Your task to perform on an android device: Open settings Image 0: 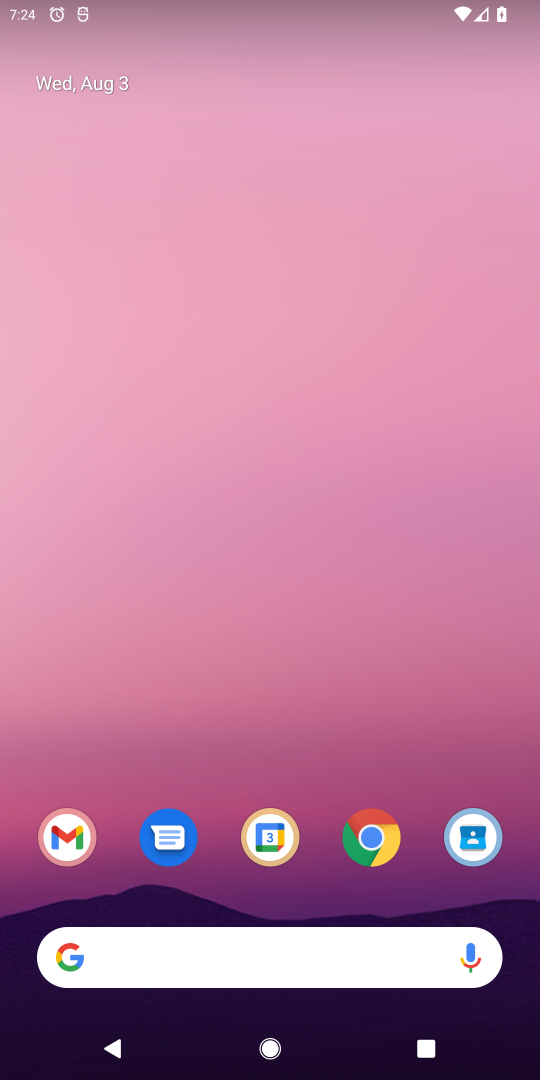
Step 0: press home button
Your task to perform on an android device: Open settings Image 1: 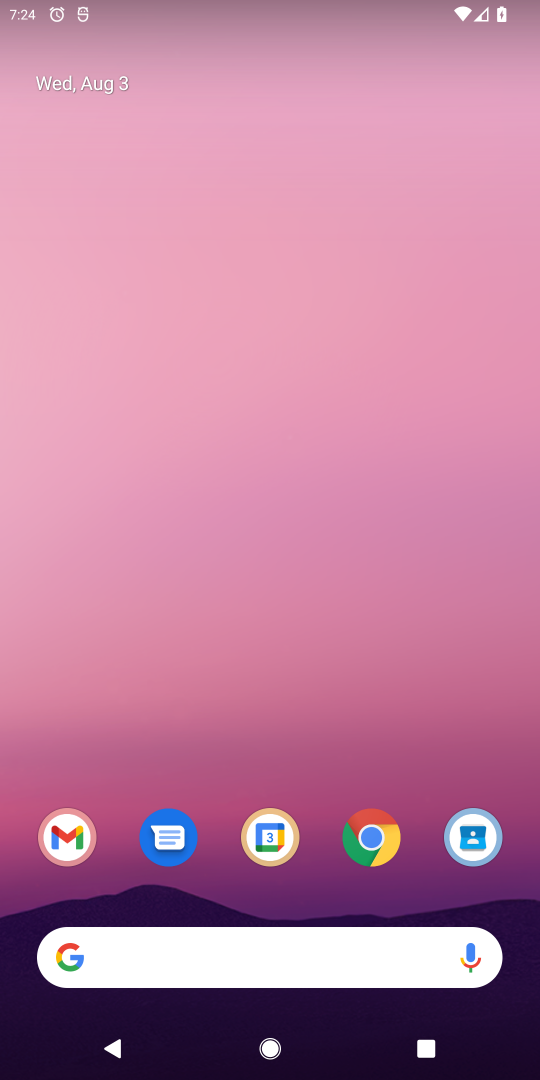
Step 1: drag from (238, 700) to (188, 103)
Your task to perform on an android device: Open settings Image 2: 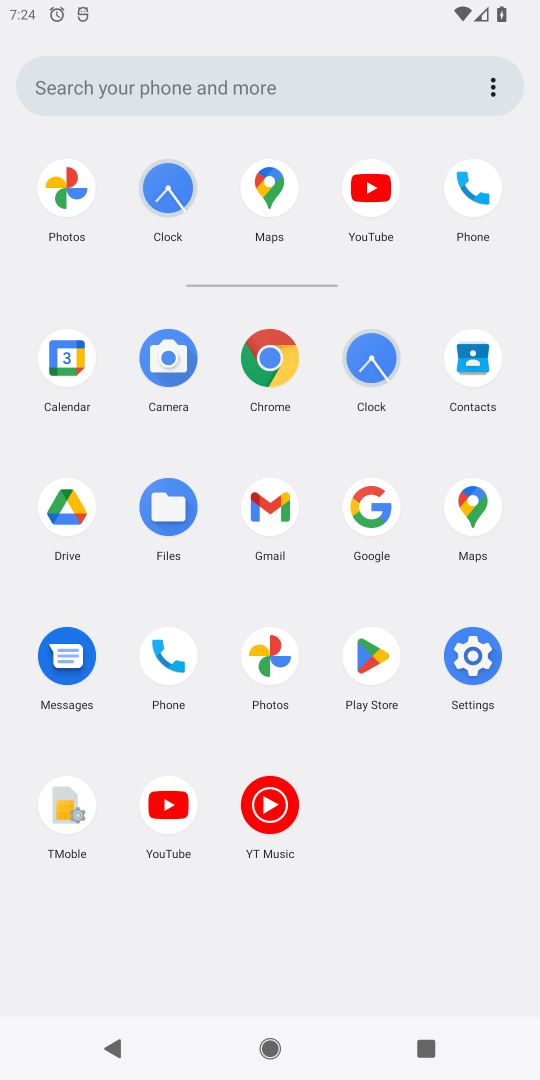
Step 2: click (465, 662)
Your task to perform on an android device: Open settings Image 3: 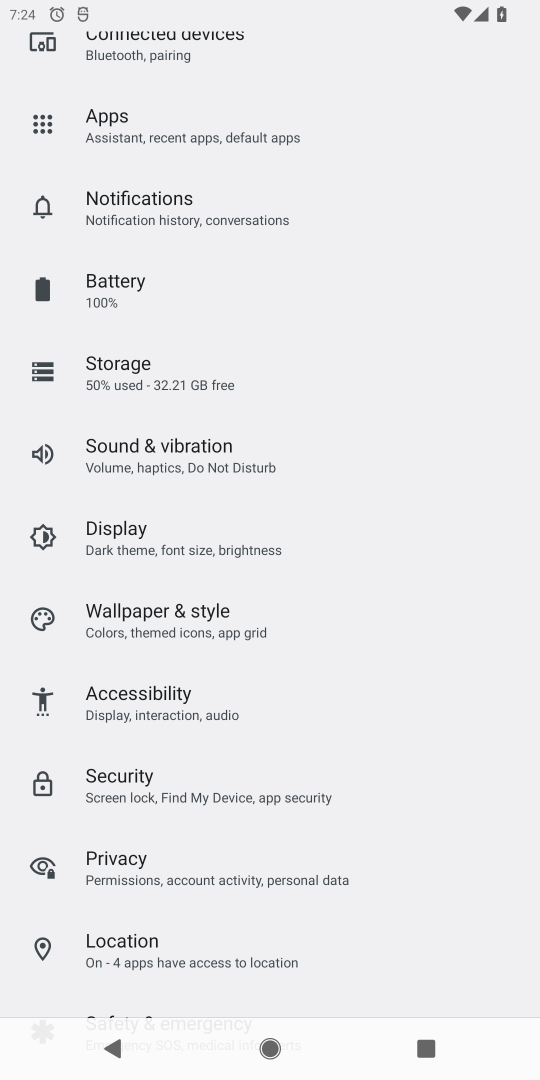
Step 3: task complete